Your task to perform on an android device: Go to internet settings Image 0: 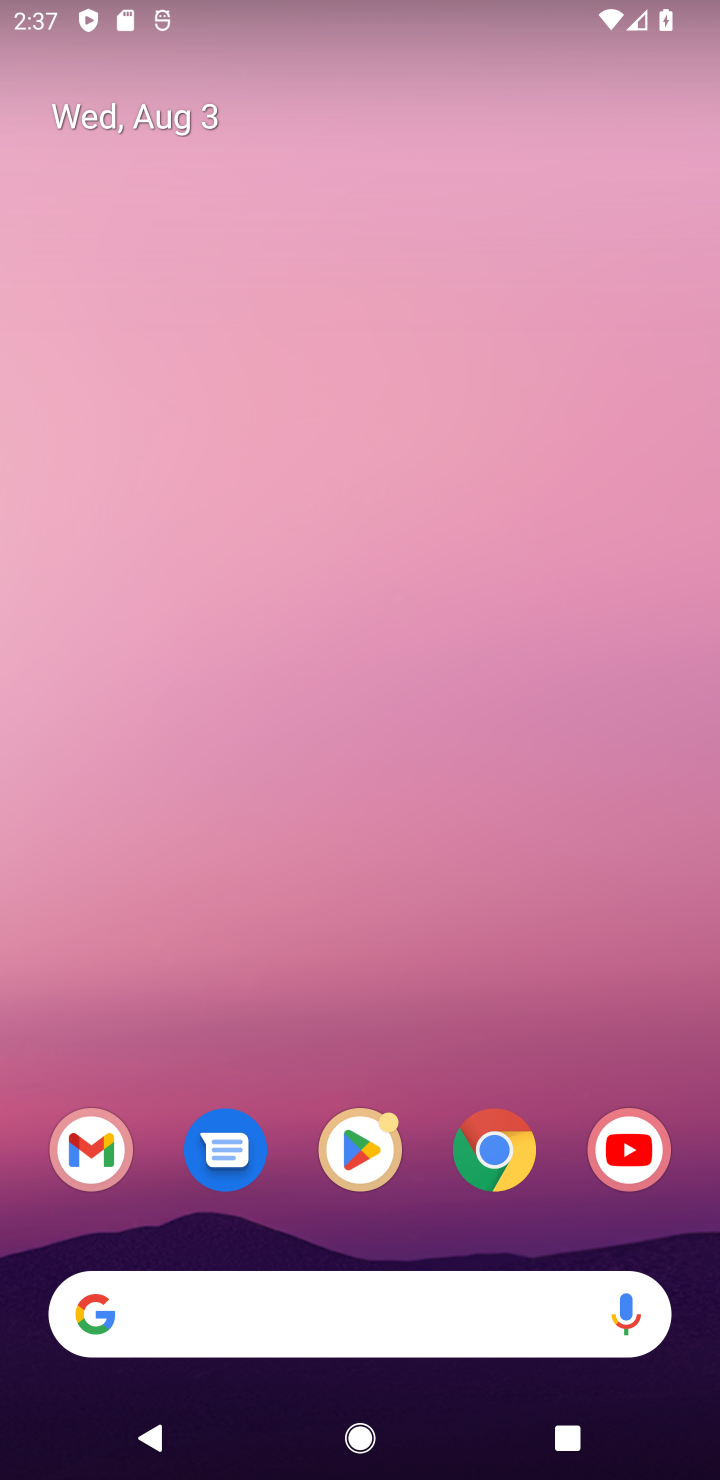
Step 0: drag from (276, 1298) to (335, 226)
Your task to perform on an android device: Go to internet settings Image 1: 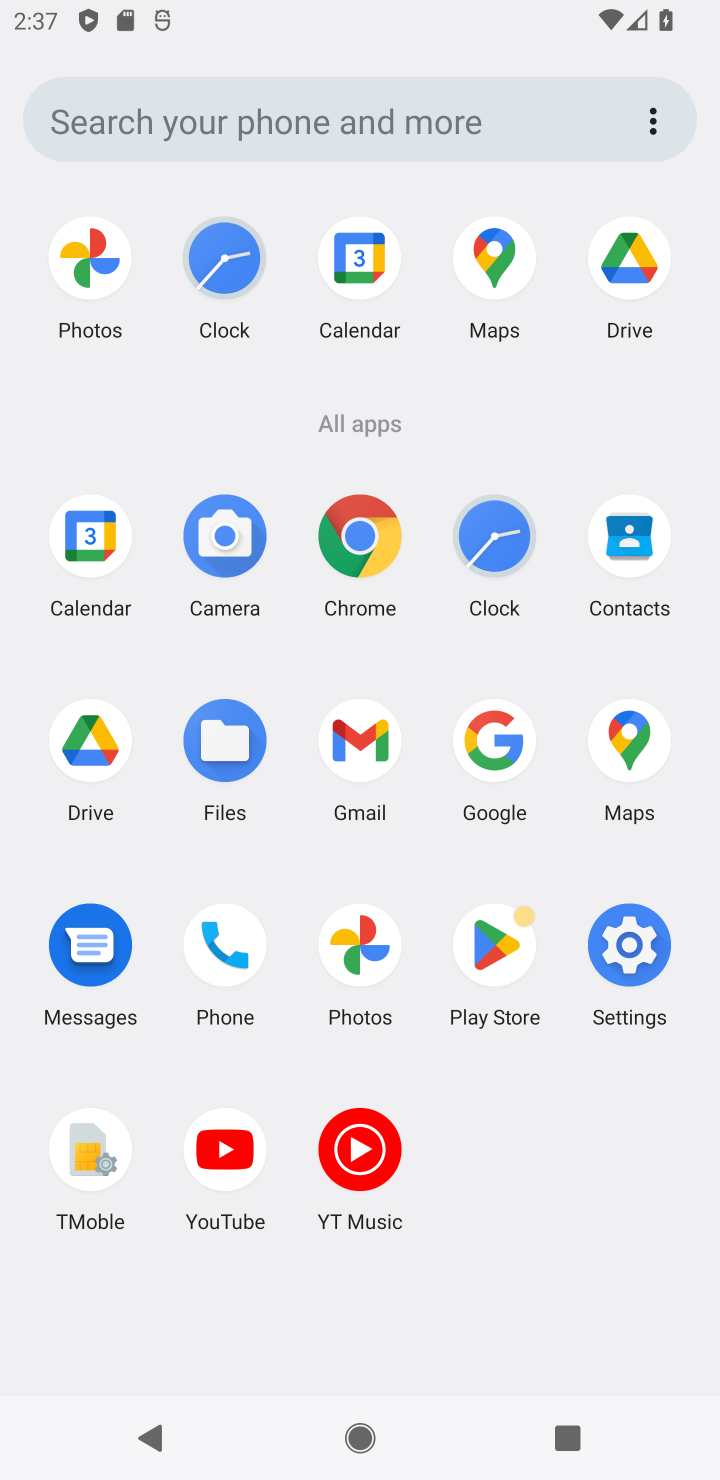
Step 1: click (628, 924)
Your task to perform on an android device: Go to internet settings Image 2: 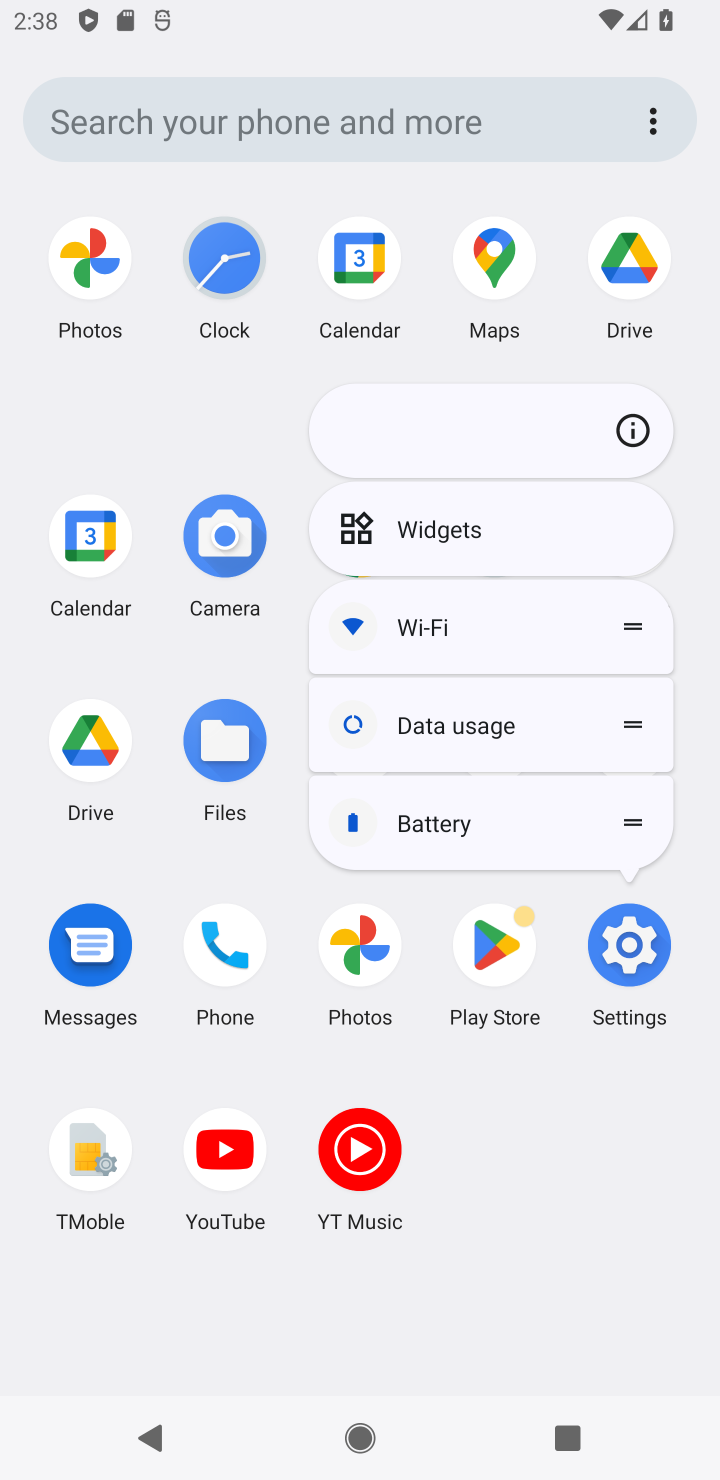
Step 2: click (646, 933)
Your task to perform on an android device: Go to internet settings Image 3: 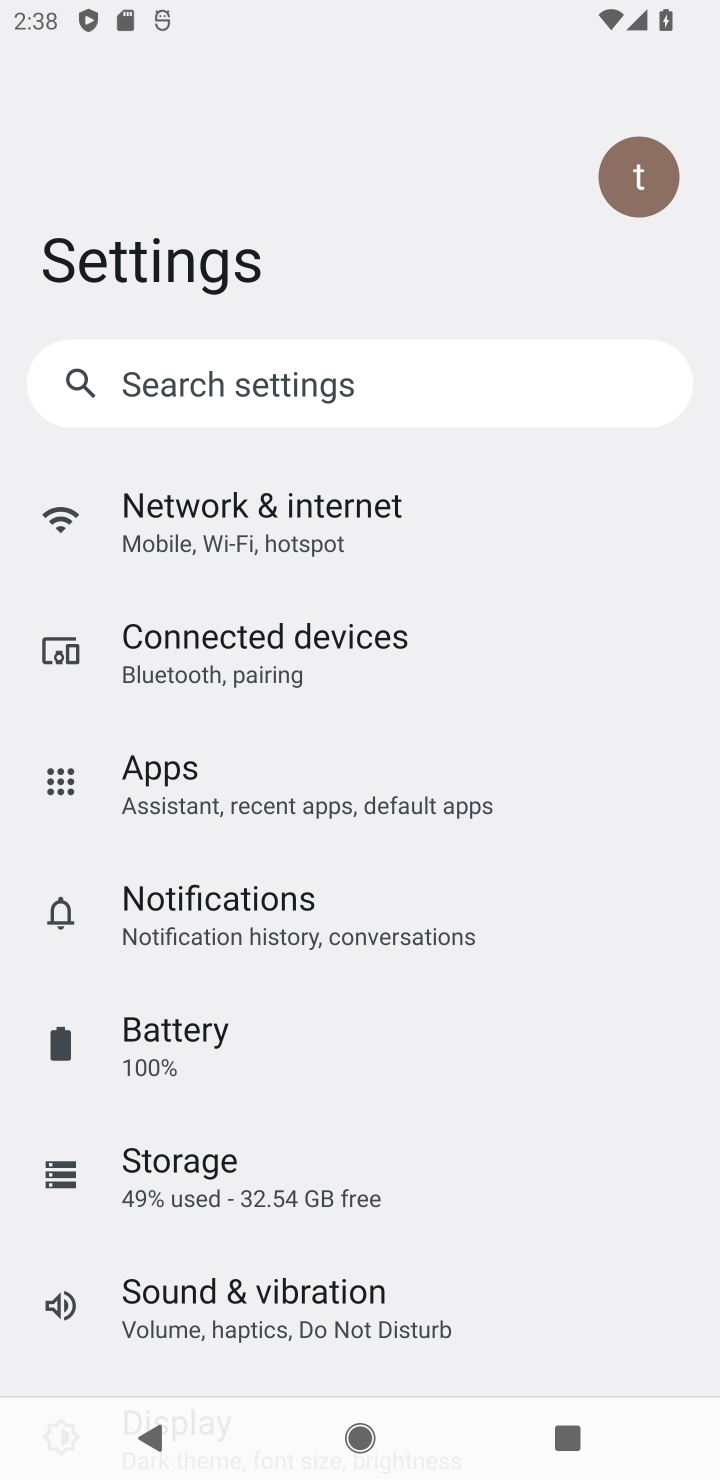
Step 3: click (238, 487)
Your task to perform on an android device: Go to internet settings Image 4: 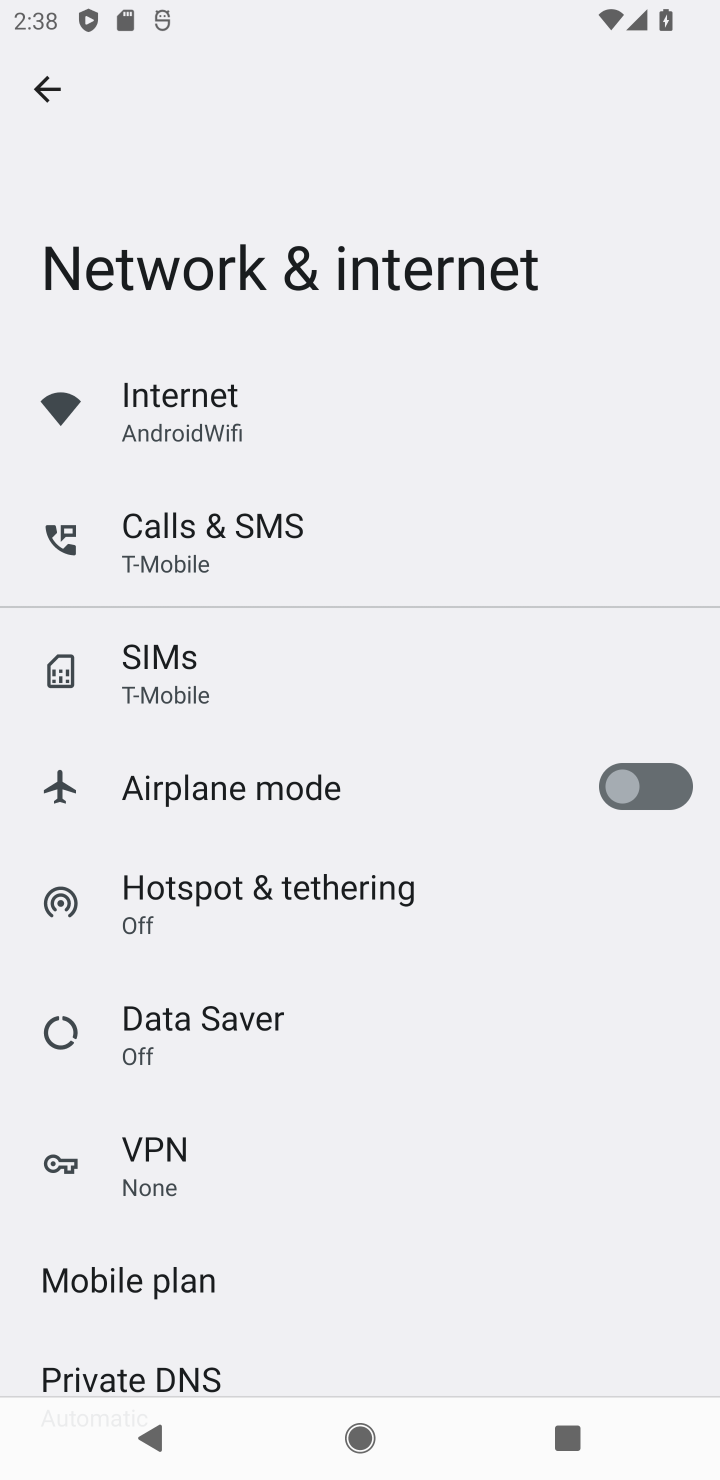
Step 4: click (233, 424)
Your task to perform on an android device: Go to internet settings Image 5: 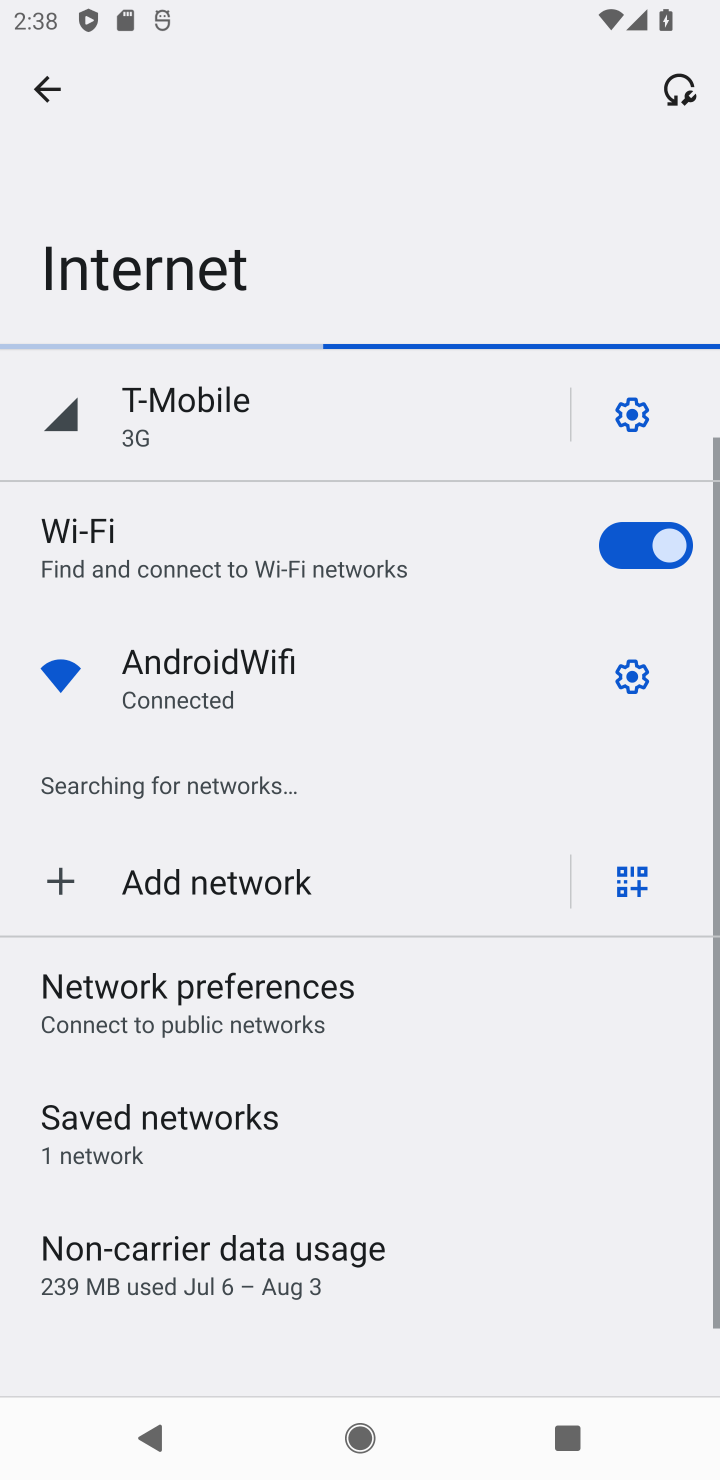
Step 5: task complete